Your task to perform on an android device: Open calendar and show me the fourth week of next month Image 0: 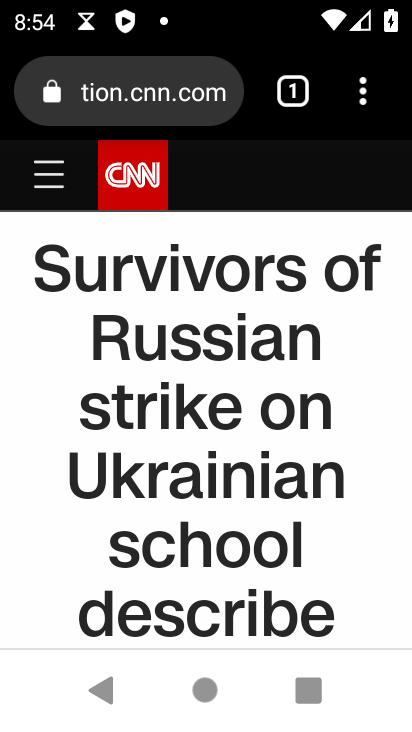
Step 0: drag from (272, 509) to (392, 420)
Your task to perform on an android device: Open calendar and show me the fourth week of next month Image 1: 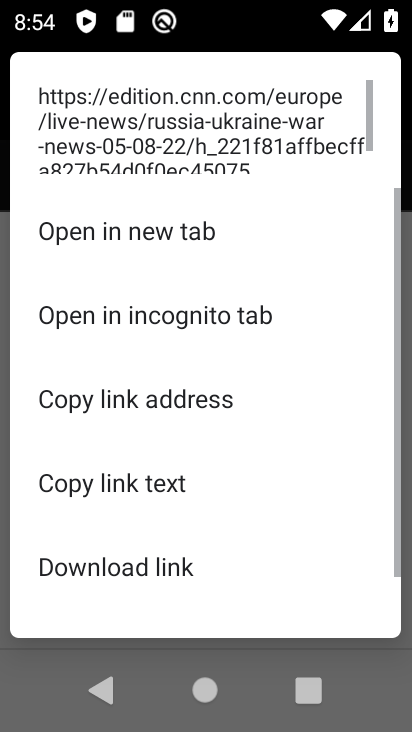
Step 1: press home button
Your task to perform on an android device: Open calendar and show me the fourth week of next month Image 2: 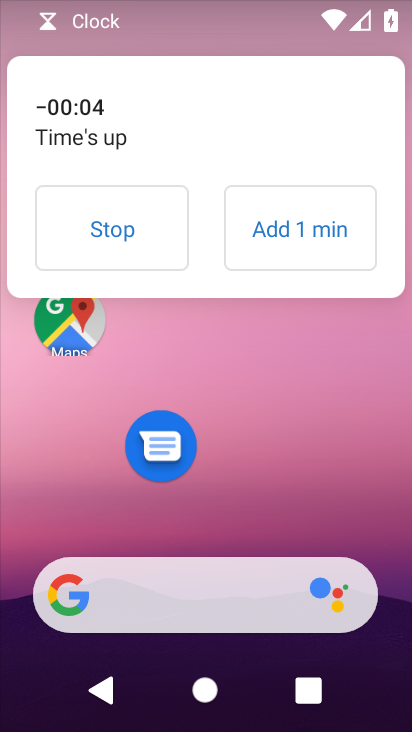
Step 2: click (175, 209)
Your task to perform on an android device: Open calendar and show me the fourth week of next month Image 3: 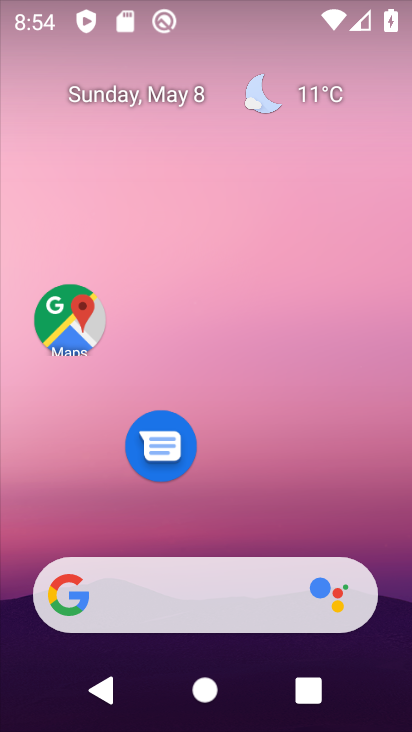
Step 3: drag from (364, 513) to (303, 16)
Your task to perform on an android device: Open calendar and show me the fourth week of next month Image 4: 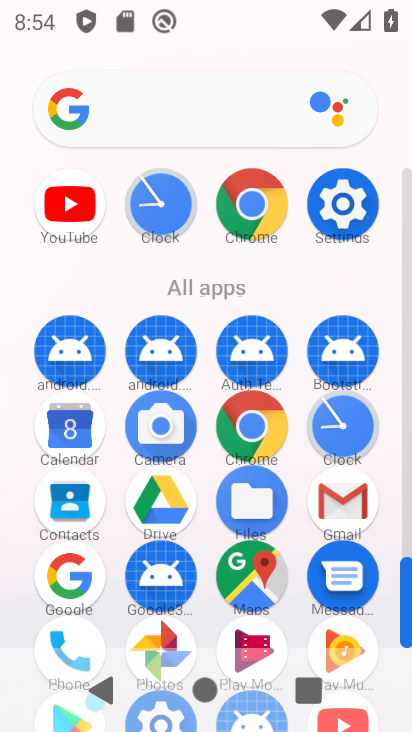
Step 4: click (63, 429)
Your task to perform on an android device: Open calendar and show me the fourth week of next month Image 5: 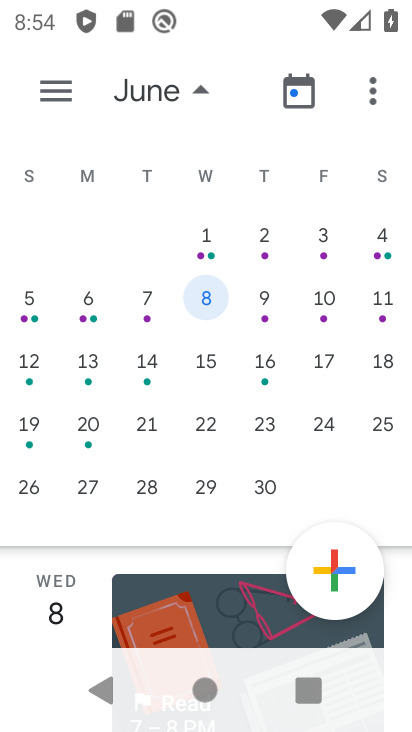
Step 5: click (196, 421)
Your task to perform on an android device: Open calendar and show me the fourth week of next month Image 6: 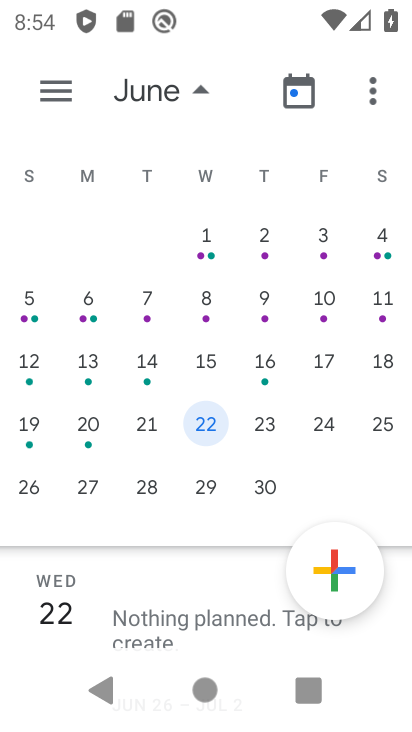
Step 6: task complete